Your task to perform on an android device: set the stopwatch Image 0: 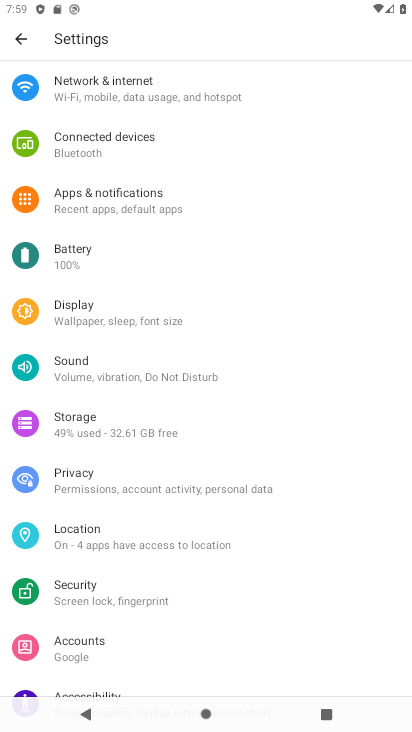
Step 0: press home button
Your task to perform on an android device: set the stopwatch Image 1: 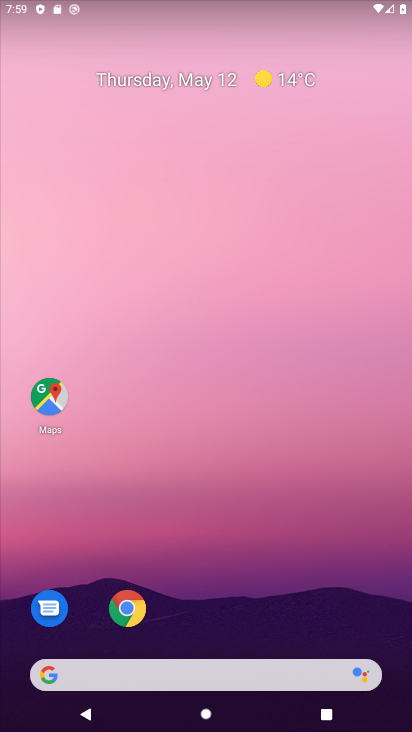
Step 1: drag from (169, 564) to (244, 59)
Your task to perform on an android device: set the stopwatch Image 2: 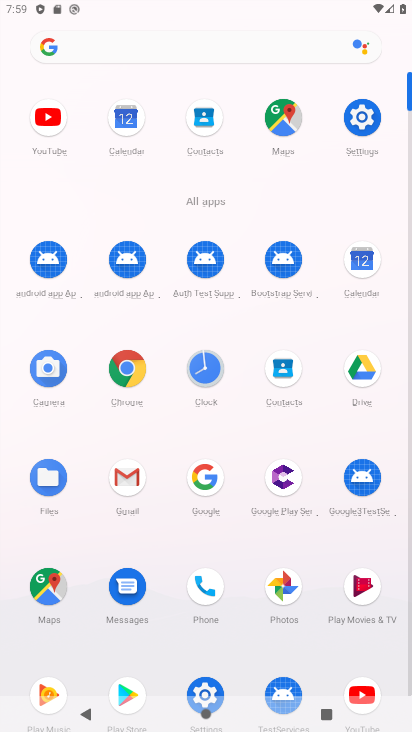
Step 2: click (201, 367)
Your task to perform on an android device: set the stopwatch Image 3: 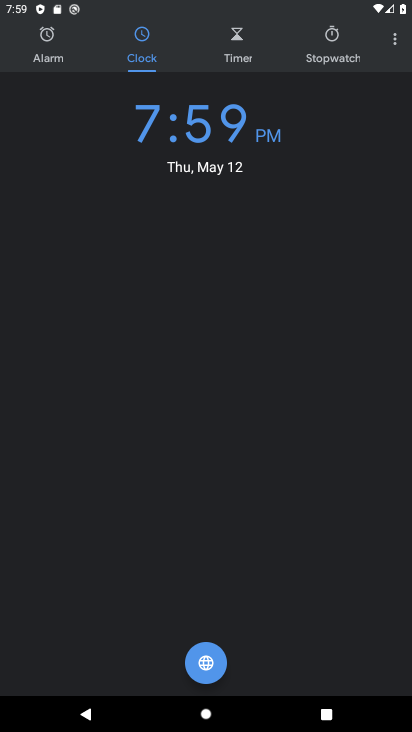
Step 3: click (335, 57)
Your task to perform on an android device: set the stopwatch Image 4: 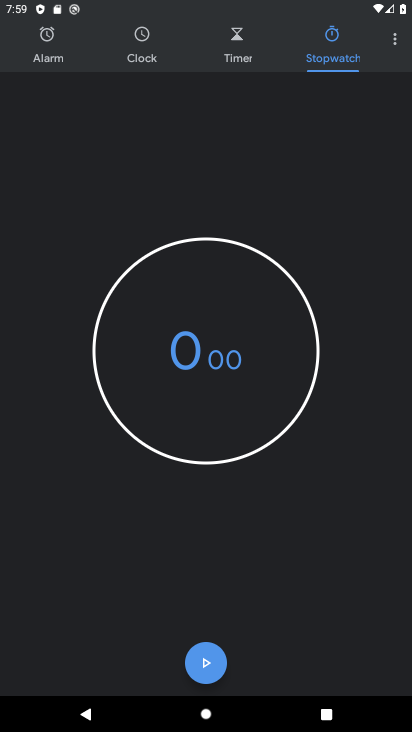
Step 4: click (217, 661)
Your task to perform on an android device: set the stopwatch Image 5: 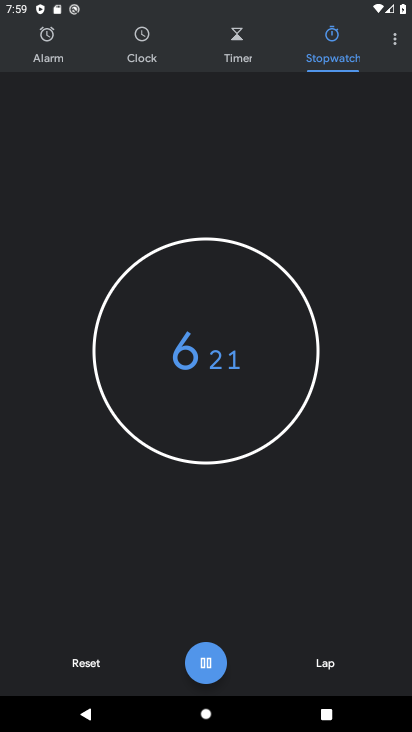
Step 5: task complete